Your task to perform on an android device: Open eBay Image 0: 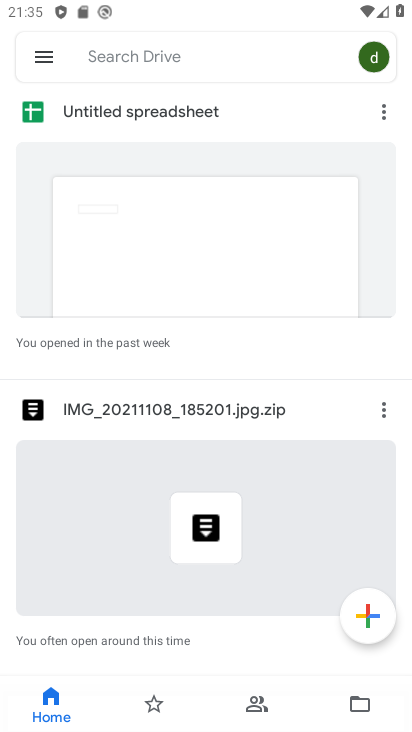
Step 0: press home button
Your task to perform on an android device: Open eBay Image 1: 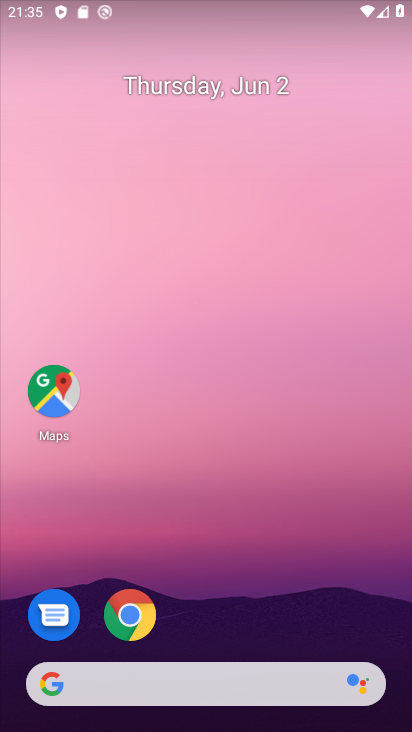
Step 1: click (130, 616)
Your task to perform on an android device: Open eBay Image 2: 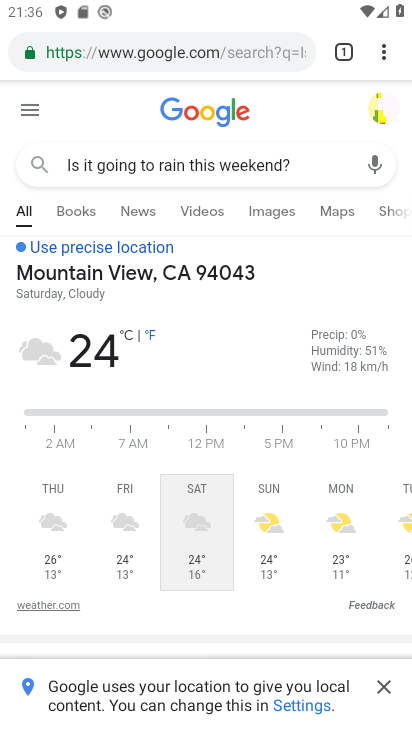
Step 2: click (152, 55)
Your task to perform on an android device: Open eBay Image 3: 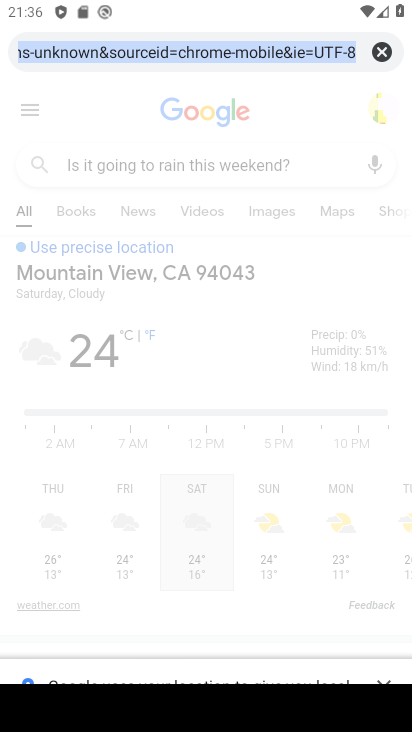
Step 3: type "eBay"
Your task to perform on an android device: Open eBay Image 4: 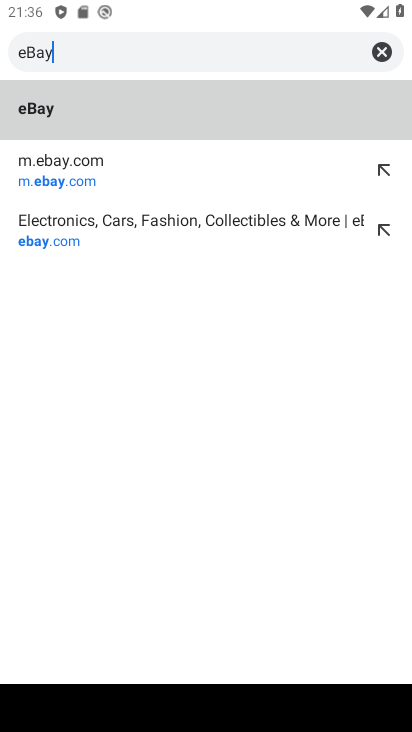
Step 4: click (199, 128)
Your task to perform on an android device: Open eBay Image 5: 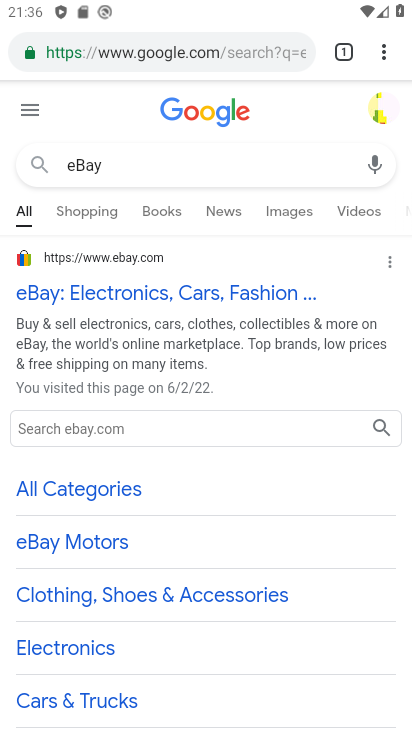
Step 5: task complete